Your task to perform on an android device: What's on my calendar today? Image 0: 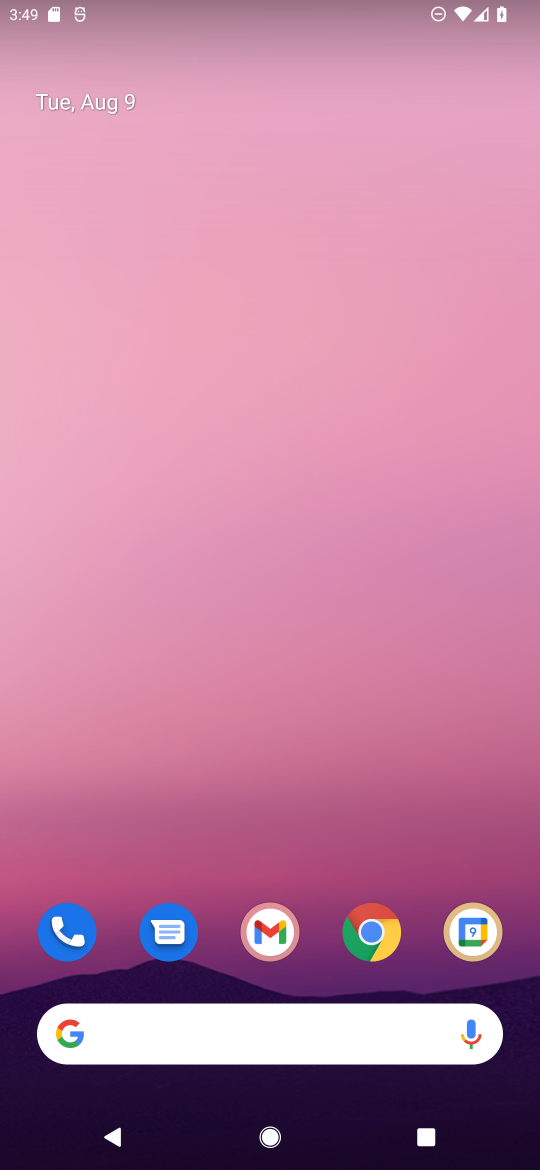
Step 0: click (108, 1018)
Your task to perform on an android device: What's on my calendar today? Image 1: 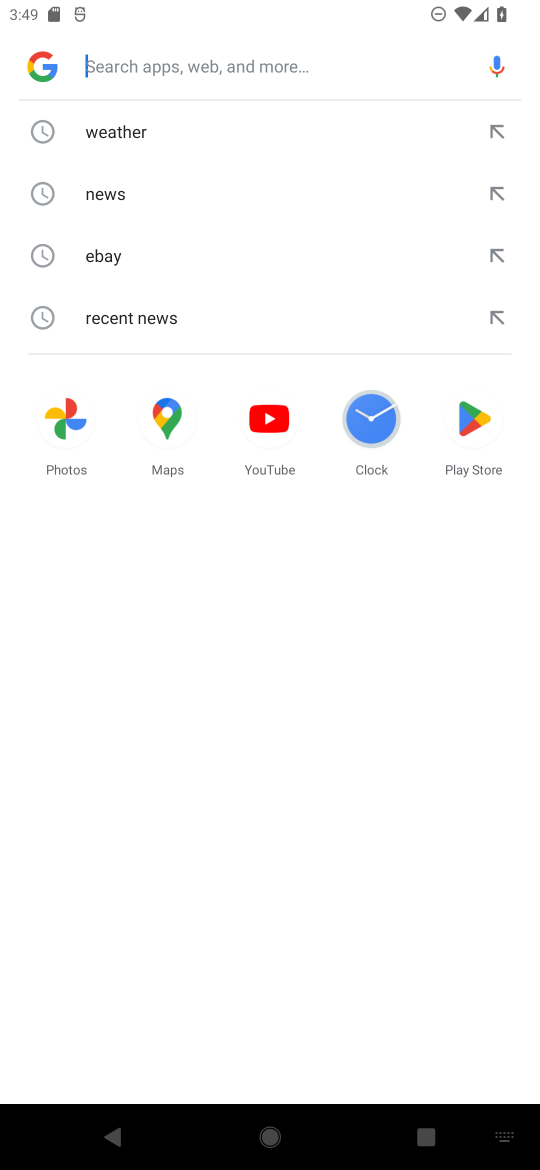
Step 1: press home button
Your task to perform on an android device: What's on my calendar today? Image 2: 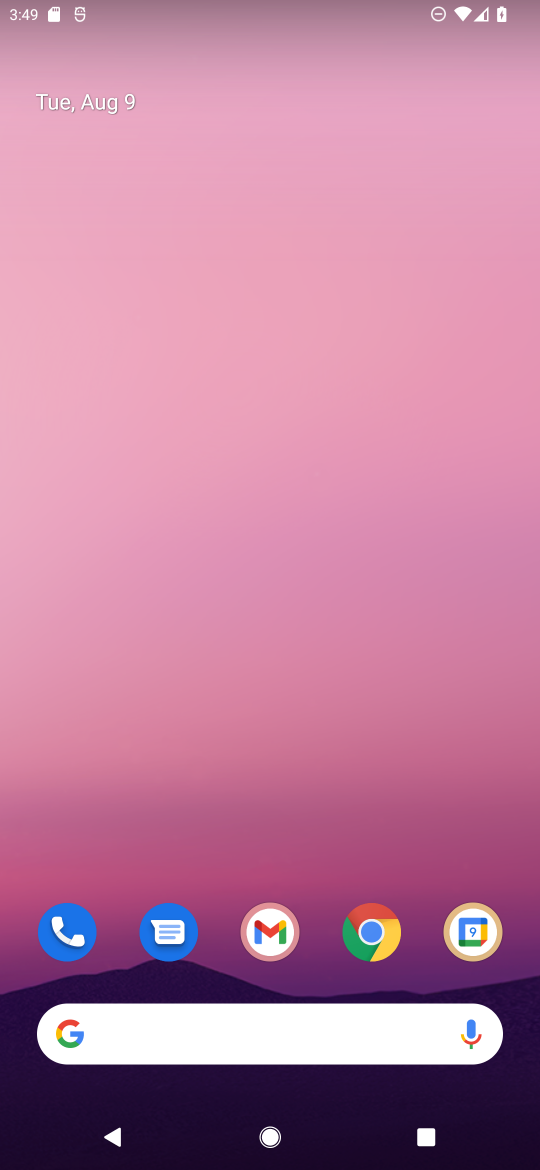
Step 2: drag from (57, 1112) to (294, 374)
Your task to perform on an android device: What's on my calendar today? Image 3: 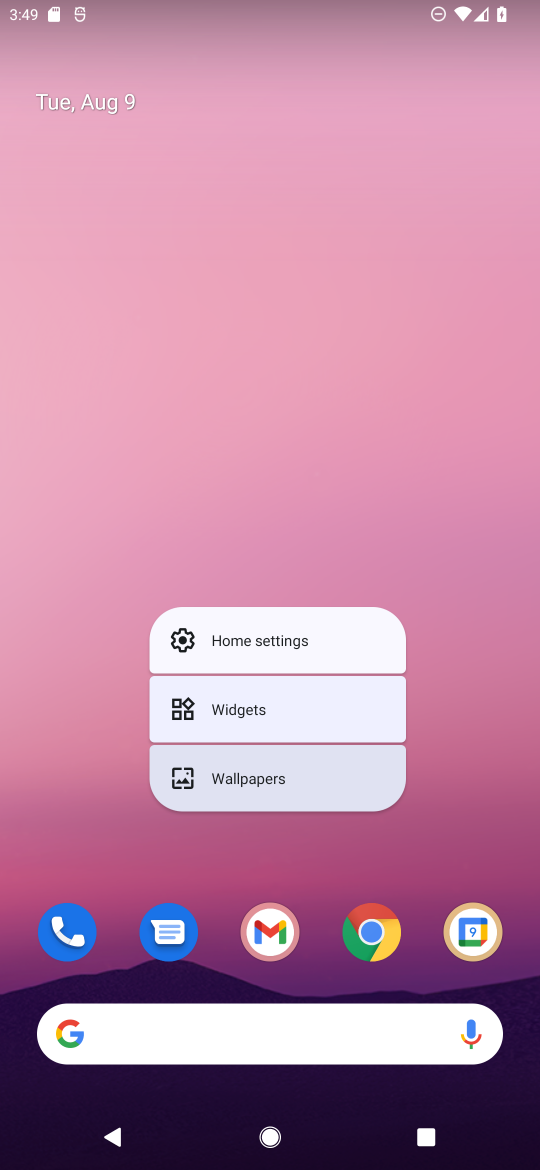
Step 3: click (68, 1116)
Your task to perform on an android device: What's on my calendar today? Image 4: 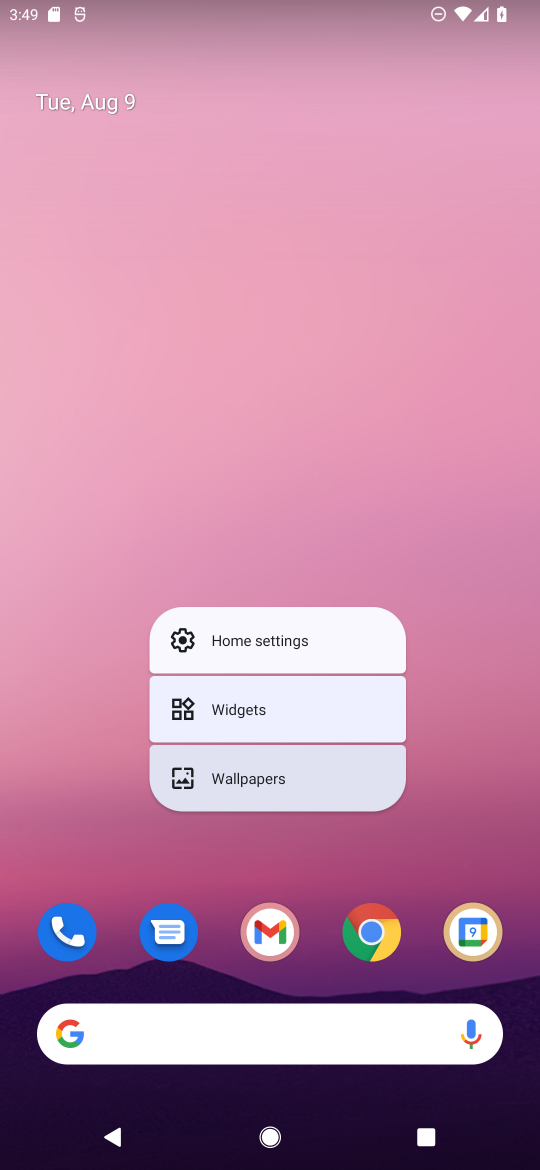
Step 4: drag from (66, 1118) to (365, 361)
Your task to perform on an android device: What's on my calendar today? Image 5: 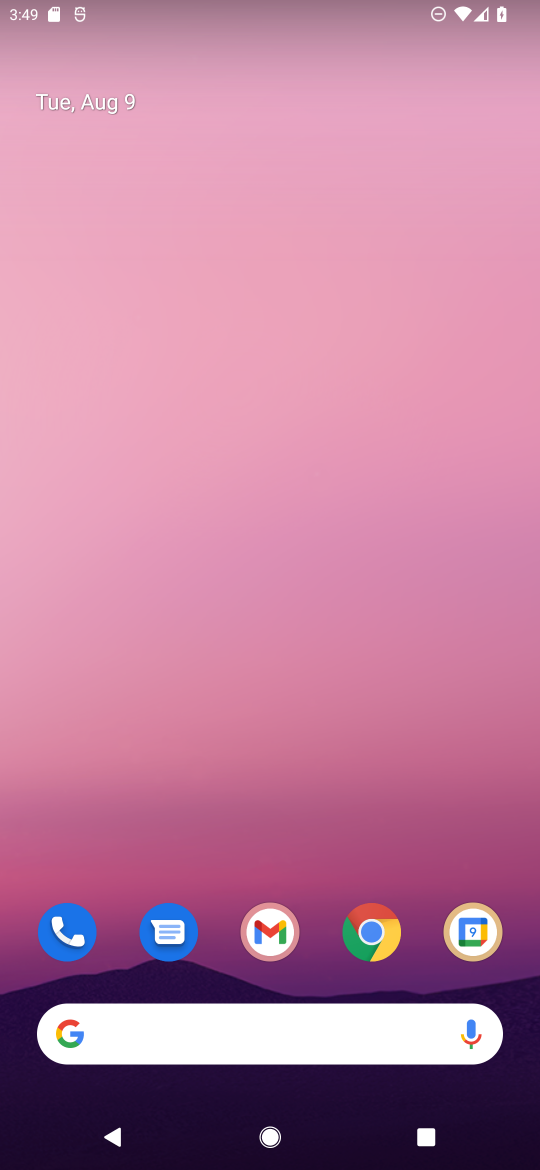
Step 5: drag from (42, 1103) to (298, 422)
Your task to perform on an android device: What's on my calendar today? Image 6: 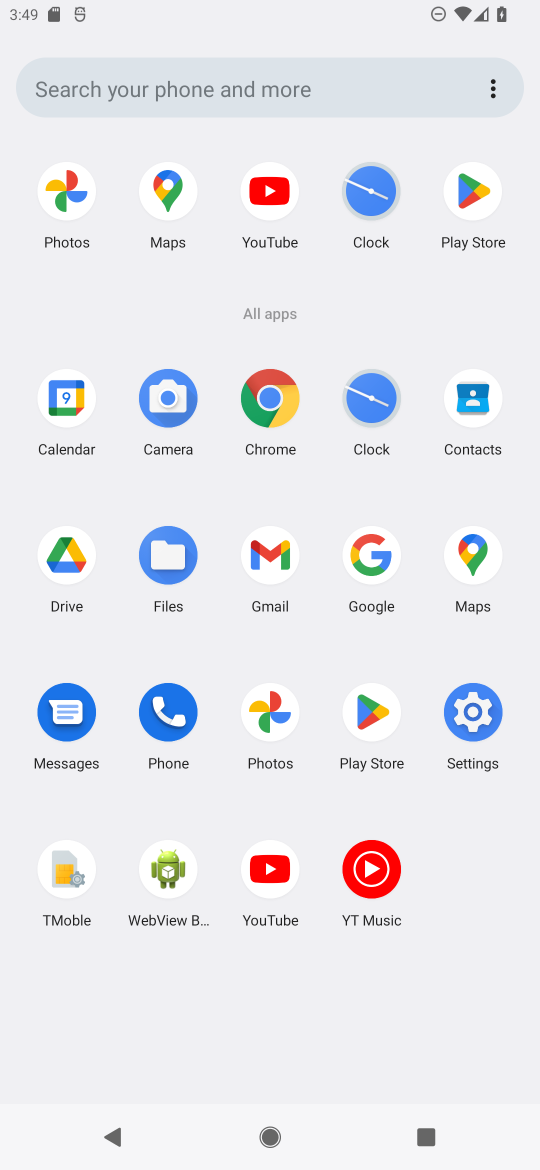
Step 6: click (91, 404)
Your task to perform on an android device: What's on my calendar today? Image 7: 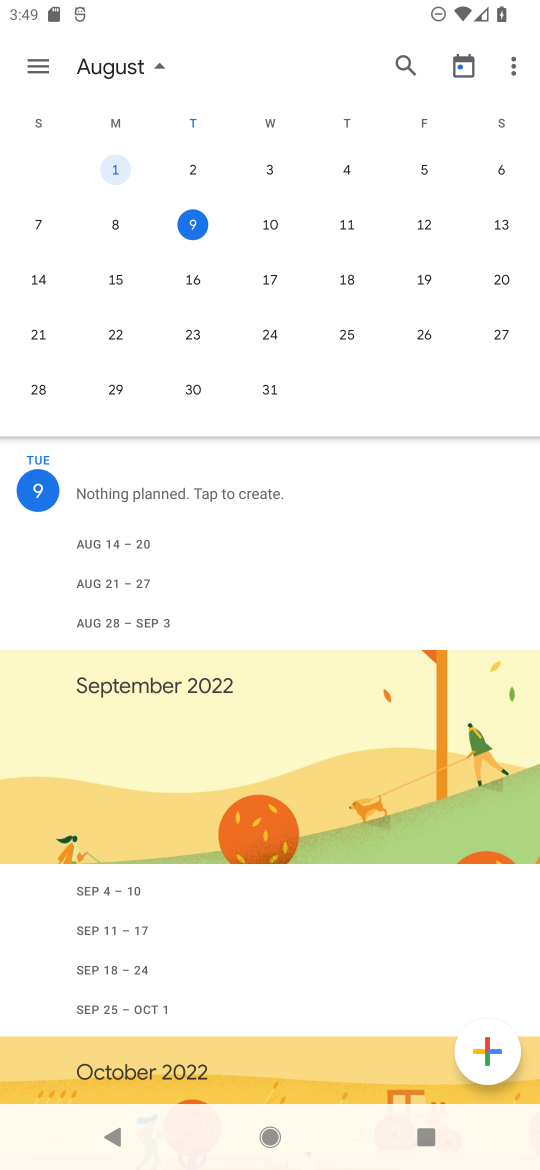
Step 7: task complete